Your task to perform on an android device: Open the map Image 0: 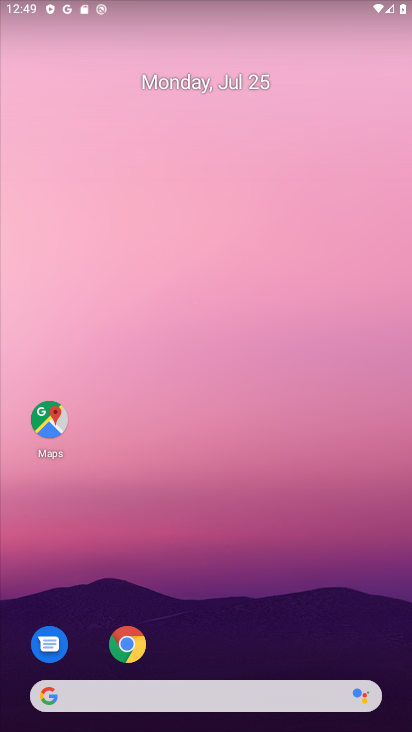
Step 0: click (49, 419)
Your task to perform on an android device: Open the map Image 1: 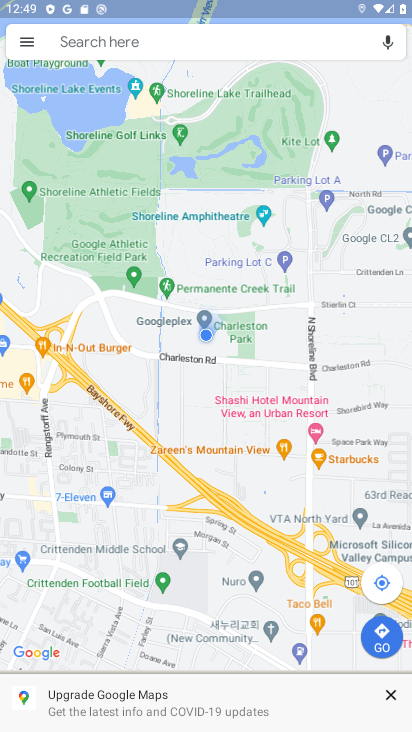
Step 1: task complete